Your task to perform on an android device: set default search engine in the chrome app Image 0: 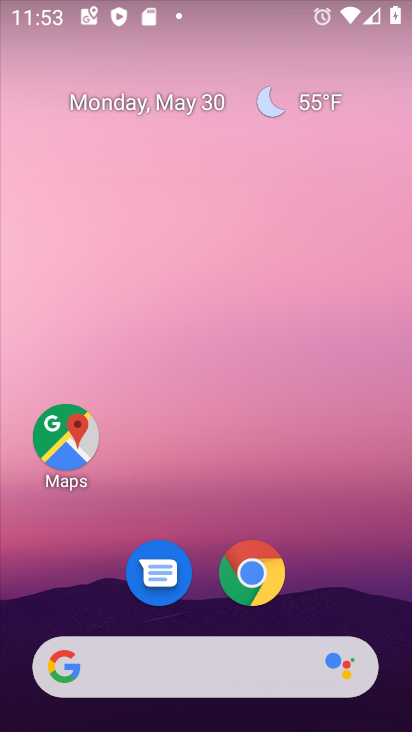
Step 0: click (263, 575)
Your task to perform on an android device: set default search engine in the chrome app Image 1: 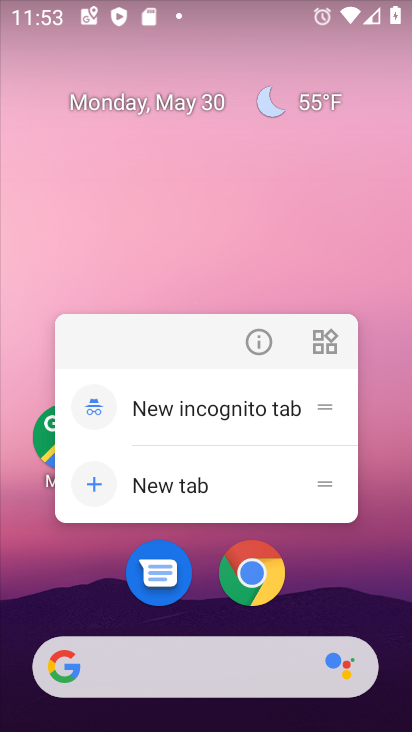
Step 1: click (326, 591)
Your task to perform on an android device: set default search engine in the chrome app Image 2: 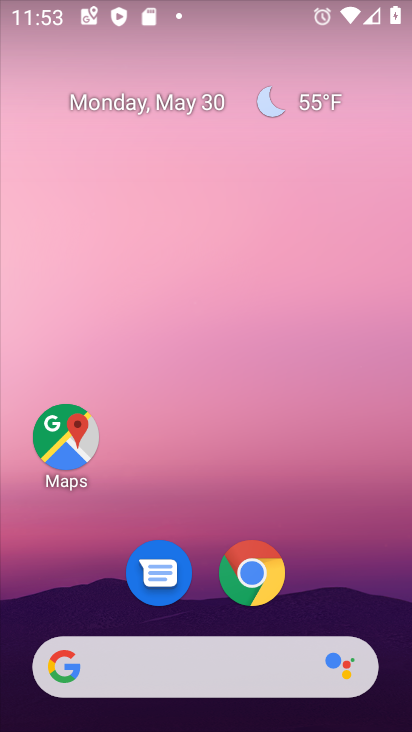
Step 2: click (254, 578)
Your task to perform on an android device: set default search engine in the chrome app Image 3: 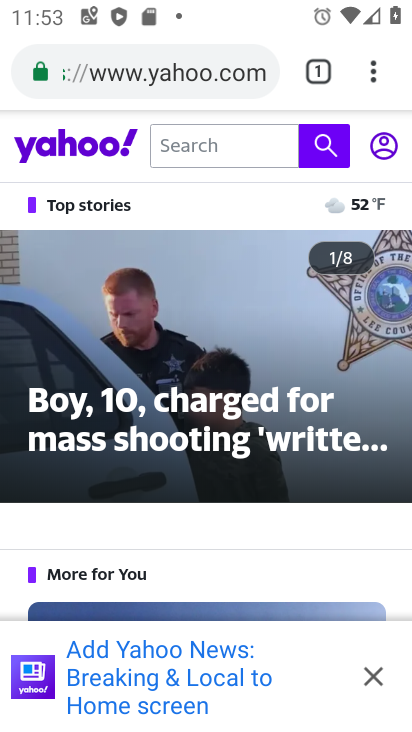
Step 3: click (315, 73)
Your task to perform on an android device: set default search engine in the chrome app Image 4: 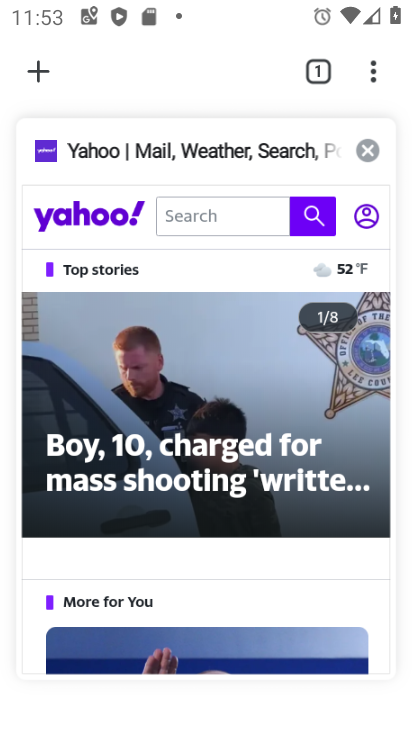
Step 4: click (372, 155)
Your task to perform on an android device: set default search engine in the chrome app Image 5: 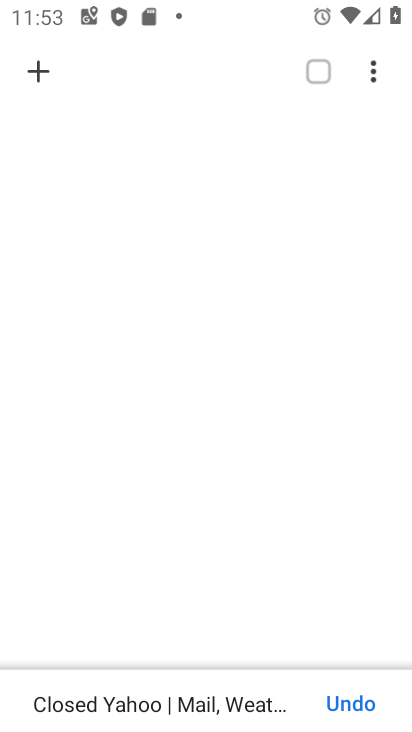
Step 5: click (374, 84)
Your task to perform on an android device: set default search engine in the chrome app Image 6: 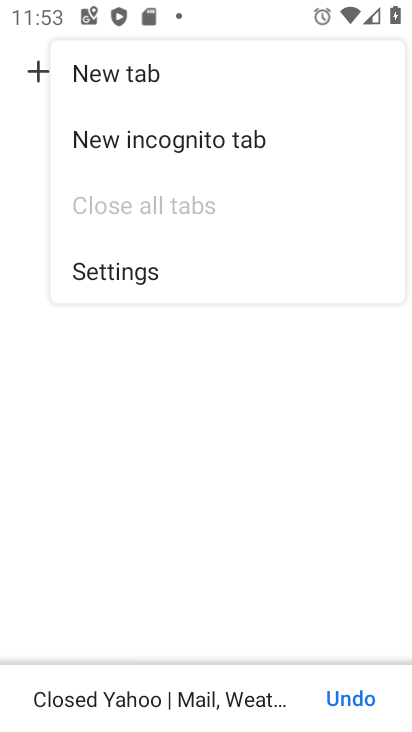
Step 6: click (151, 288)
Your task to perform on an android device: set default search engine in the chrome app Image 7: 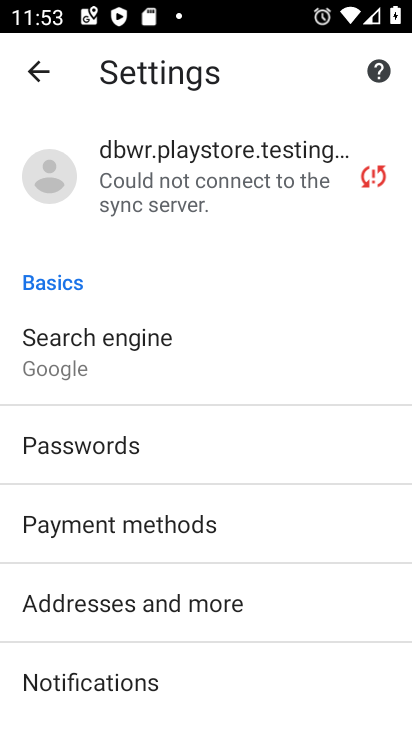
Step 7: drag from (283, 708) to (315, 286)
Your task to perform on an android device: set default search engine in the chrome app Image 8: 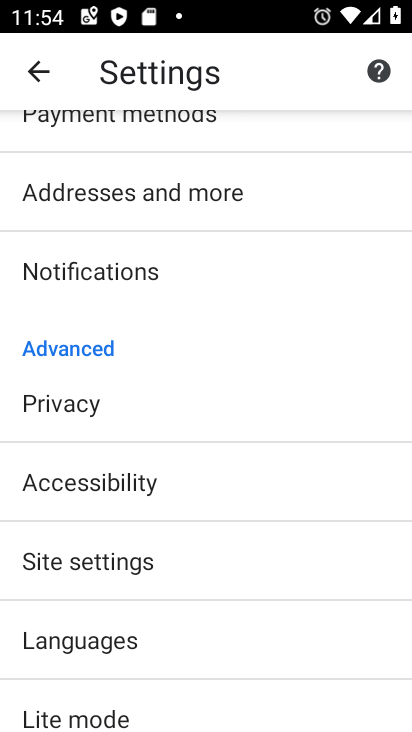
Step 8: drag from (201, 276) to (216, 719)
Your task to perform on an android device: set default search engine in the chrome app Image 9: 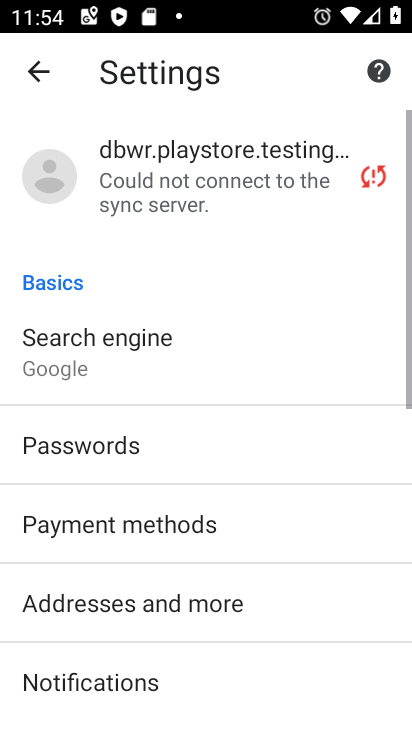
Step 9: click (145, 342)
Your task to perform on an android device: set default search engine in the chrome app Image 10: 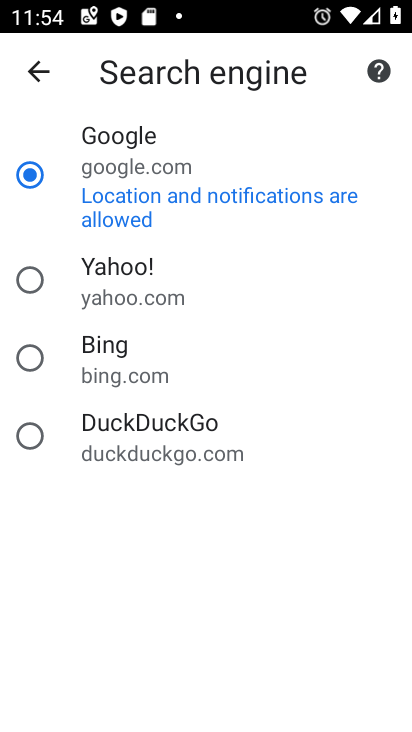
Step 10: click (155, 301)
Your task to perform on an android device: set default search engine in the chrome app Image 11: 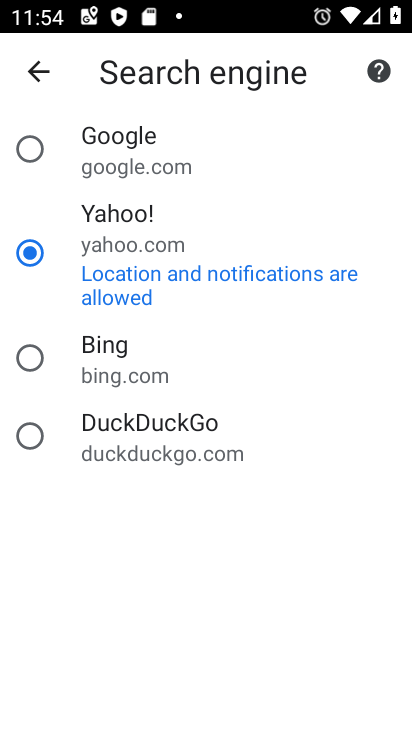
Step 11: task complete